Your task to perform on an android device: Open ESPN.com Image 0: 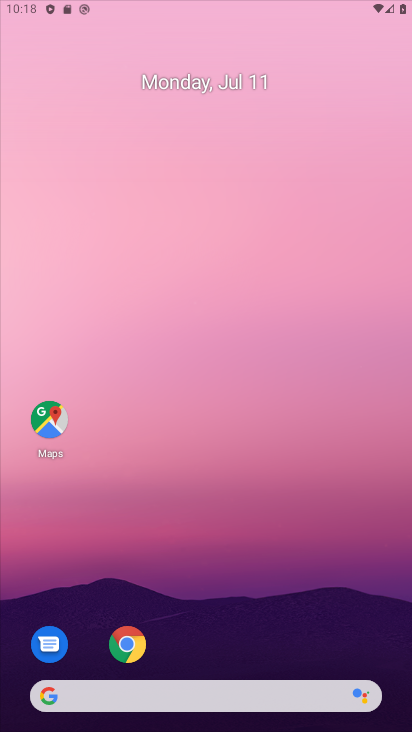
Step 0: drag from (147, 19) to (270, 103)
Your task to perform on an android device: Open ESPN.com Image 1: 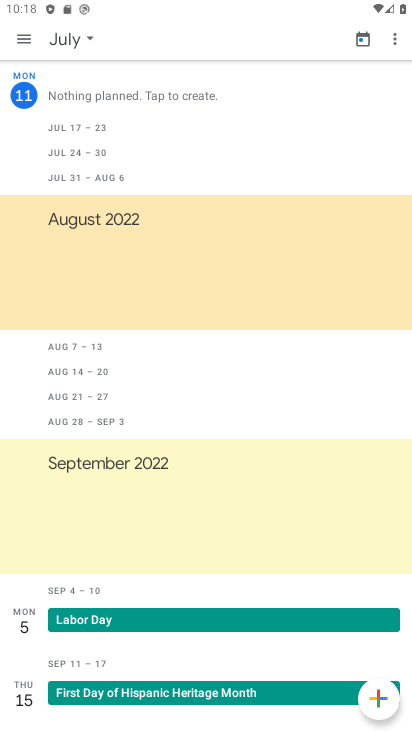
Step 1: drag from (264, 465) to (210, 82)
Your task to perform on an android device: Open ESPN.com Image 2: 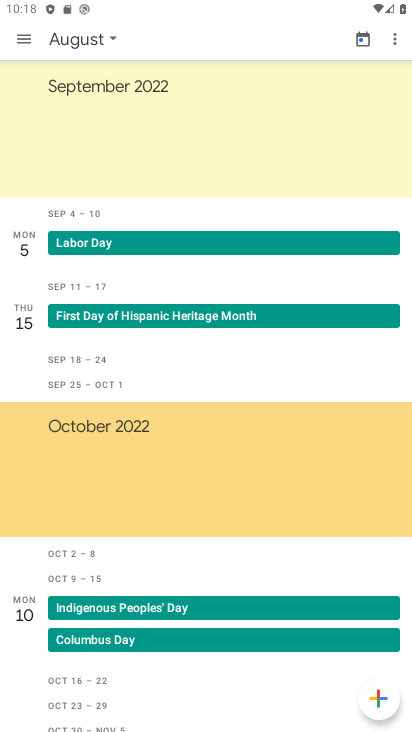
Step 2: press back button
Your task to perform on an android device: Open ESPN.com Image 3: 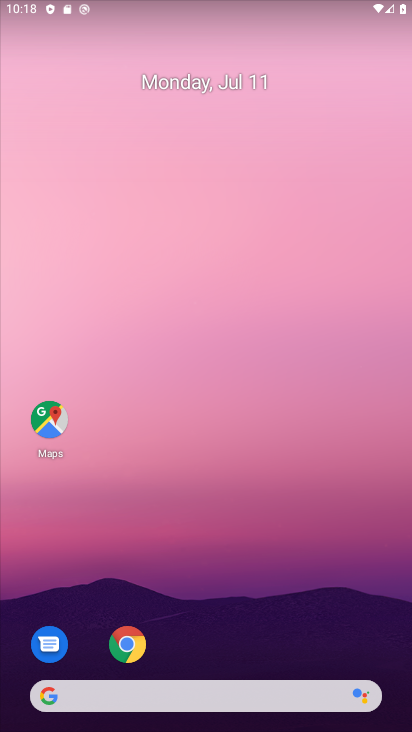
Step 3: drag from (290, 552) to (168, 162)
Your task to perform on an android device: Open ESPN.com Image 4: 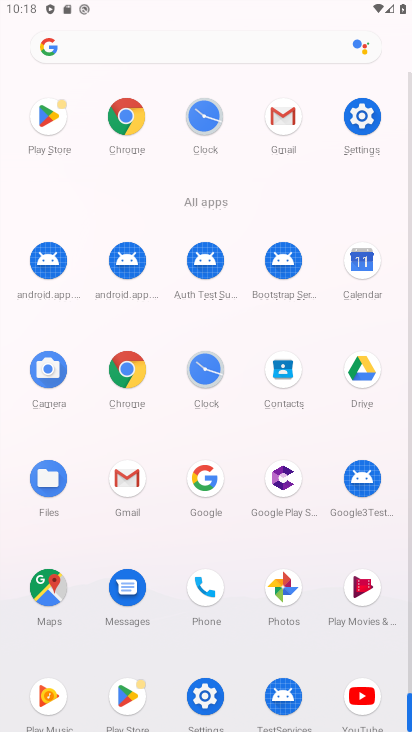
Step 4: click (129, 113)
Your task to perform on an android device: Open ESPN.com Image 5: 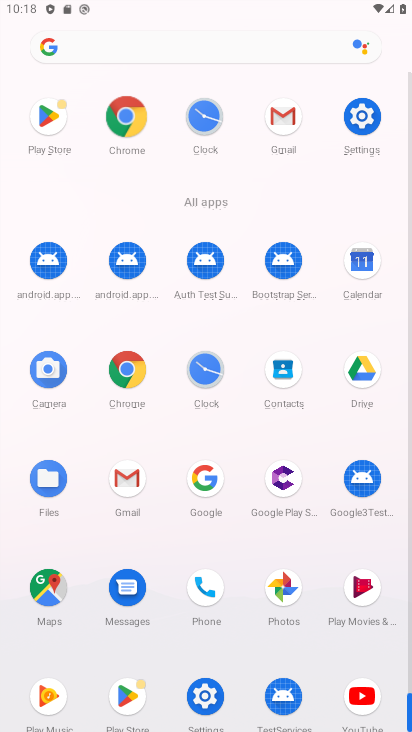
Step 5: click (129, 113)
Your task to perform on an android device: Open ESPN.com Image 6: 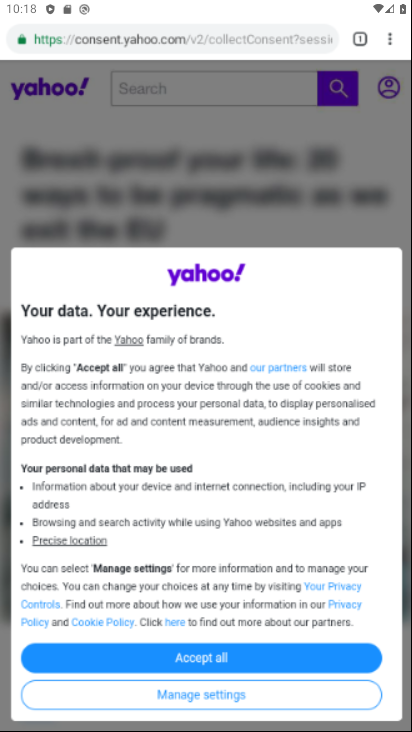
Step 6: click (130, 114)
Your task to perform on an android device: Open ESPN.com Image 7: 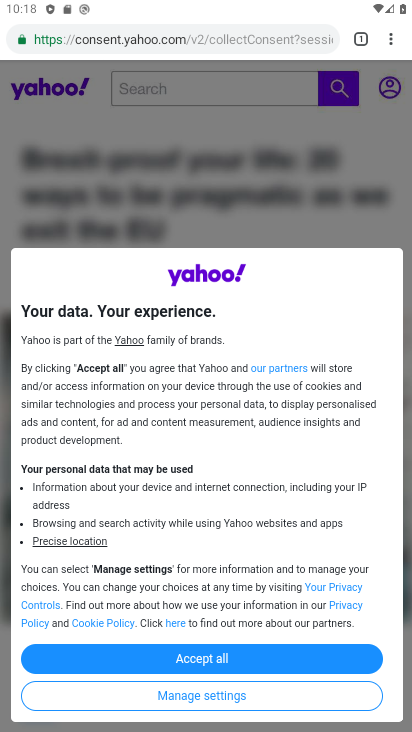
Step 7: click (396, 34)
Your task to perform on an android device: Open ESPN.com Image 8: 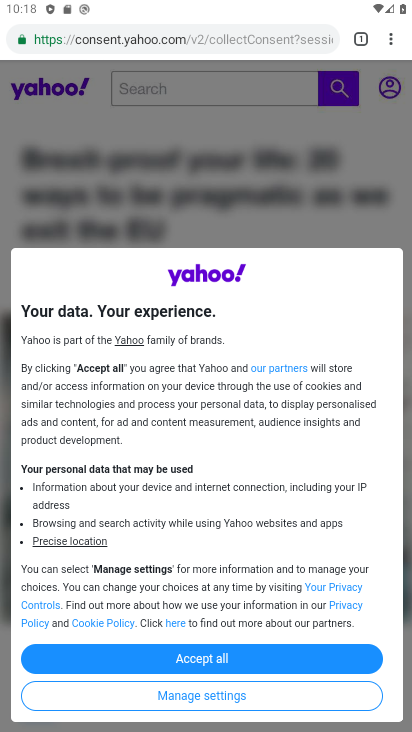
Step 8: drag from (394, 38) to (234, 81)
Your task to perform on an android device: Open ESPN.com Image 9: 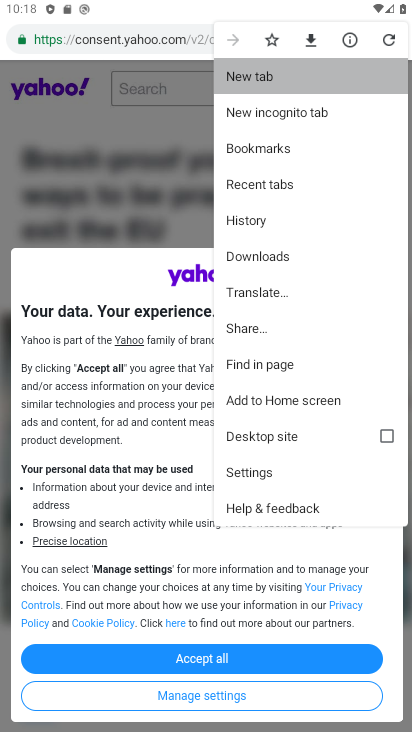
Step 9: click (234, 81)
Your task to perform on an android device: Open ESPN.com Image 10: 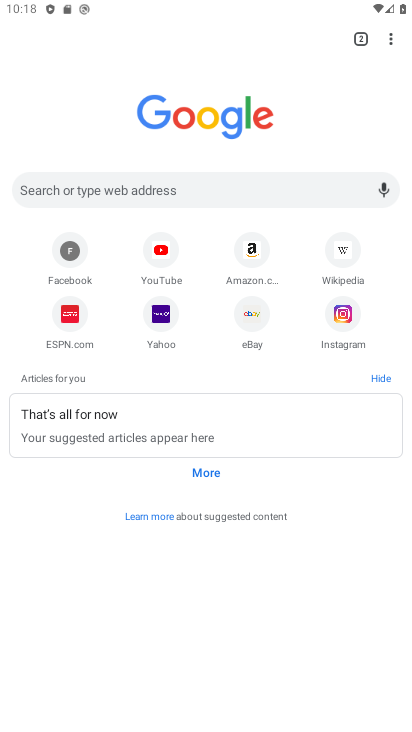
Step 10: click (65, 306)
Your task to perform on an android device: Open ESPN.com Image 11: 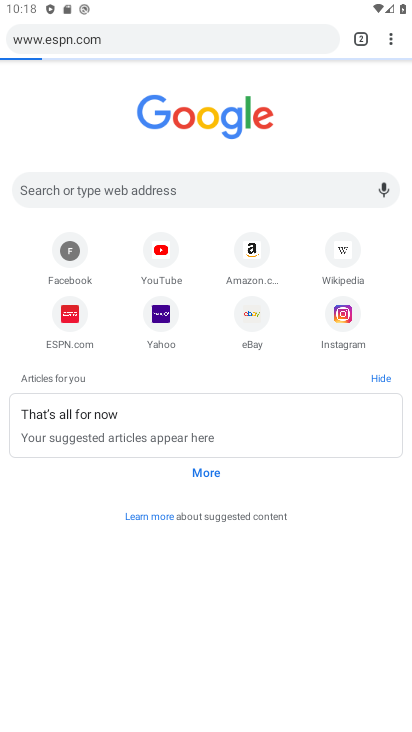
Step 11: click (65, 305)
Your task to perform on an android device: Open ESPN.com Image 12: 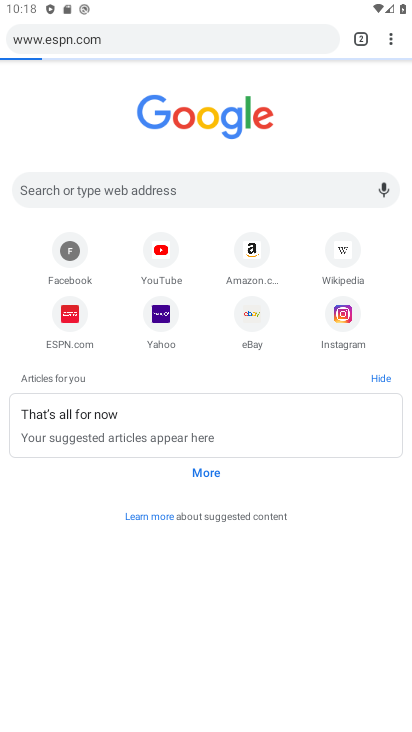
Step 12: click (64, 304)
Your task to perform on an android device: Open ESPN.com Image 13: 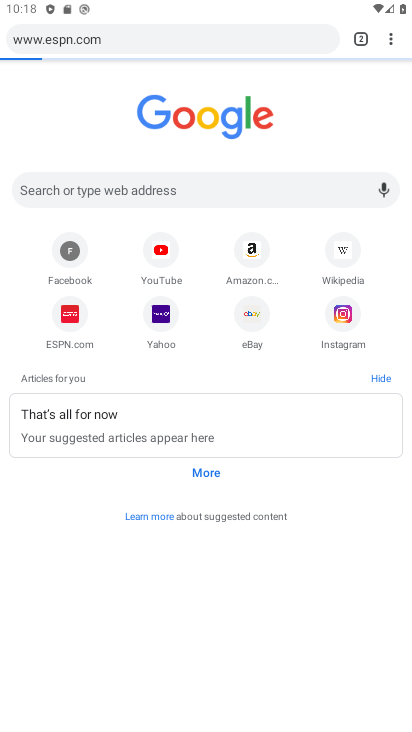
Step 13: click (63, 304)
Your task to perform on an android device: Open ESPN.com Image 14: 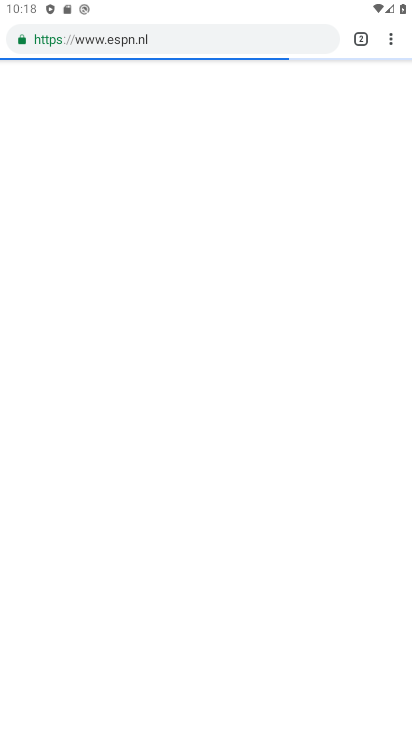
Step 14: task complete